Your task to perform on an android device: Open internet settings Image 0: 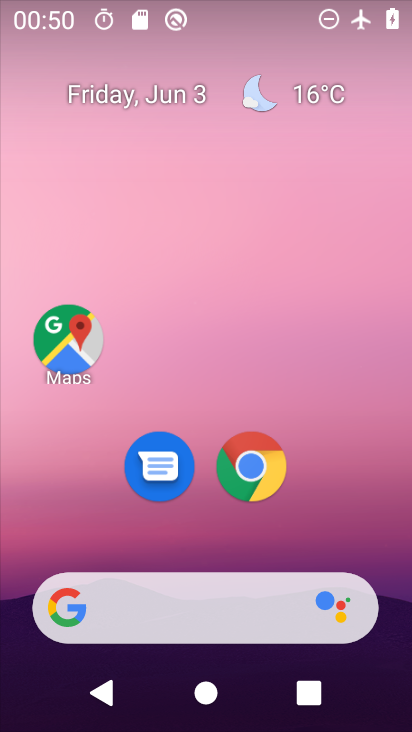
Step 0: click (203, 126)
Your task to perform on an android device: Open internet settings Image 1: 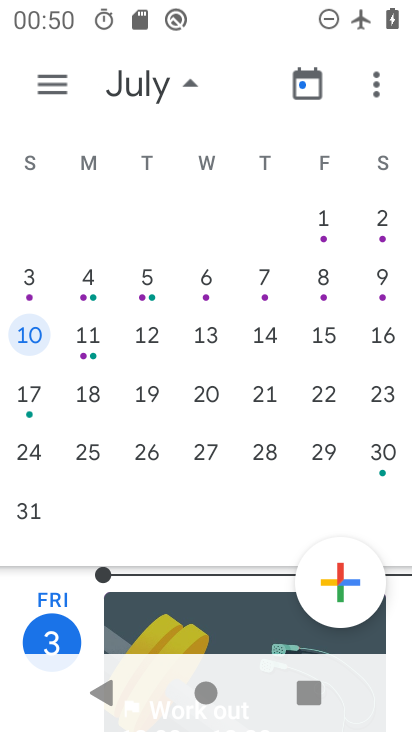
Step 1: press home button
Your task to perform on an android device: Open internet settings Image 2: 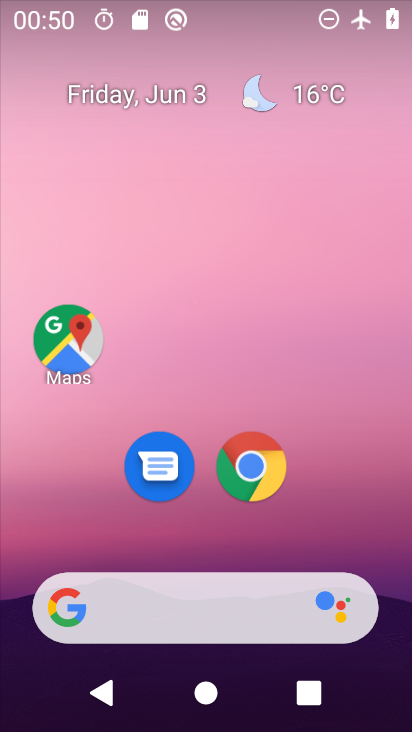
Step 2: drag from (219, 559) to (232, 132)
Your task to perform on an android device: Open internet settings Image 3: 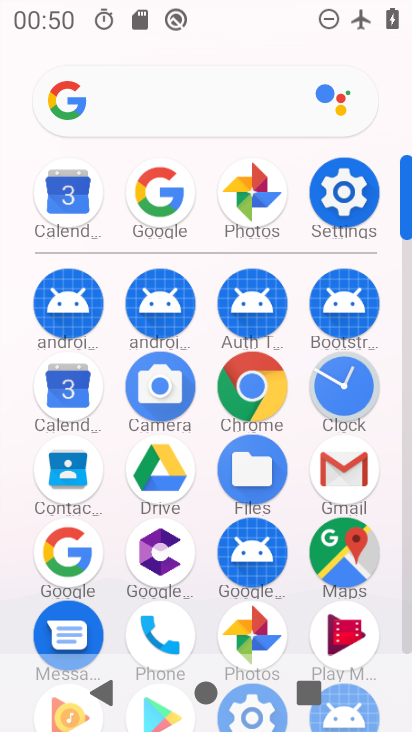
Step 3: click (357, 191)
Your task to perform on an android device: Open internet settings Image 4: 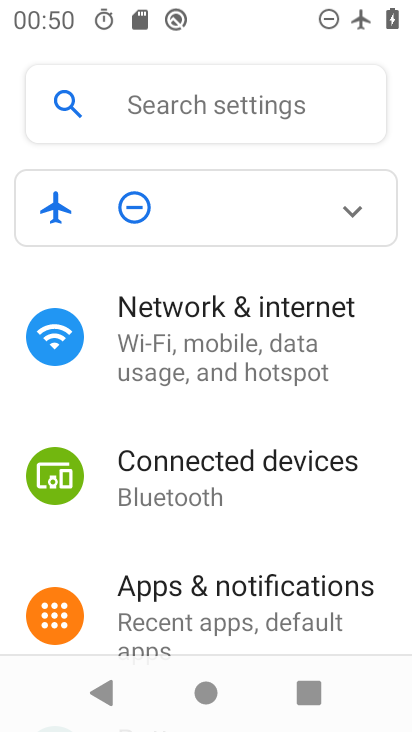
Step 4: click (241, 317)
Your task to perform on an android device: Open internet settings Image 5: 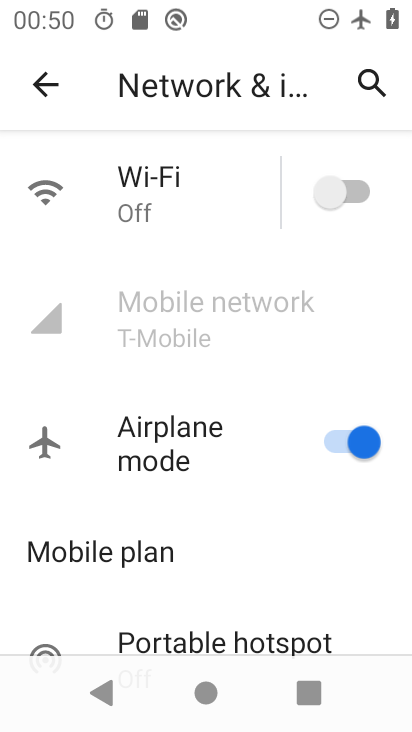
Step 5: task complete